Your task to perform on an android device: read, delete, or share a saved page in the chrome app Image 0: 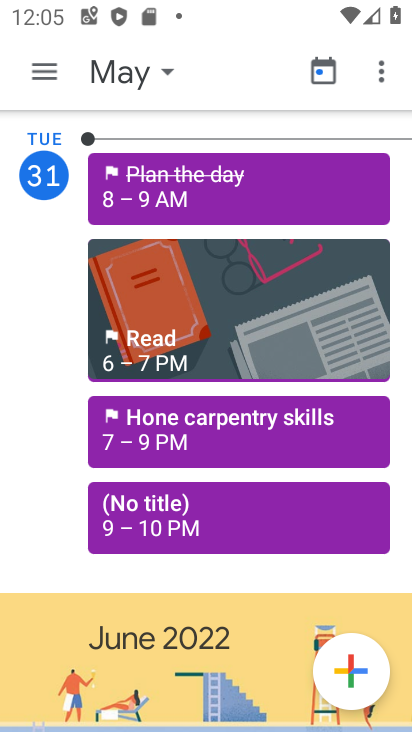
Step 0: press home button
Your task to perform on an android device: read, delete, or share a saved page in the chrome app Image 1: 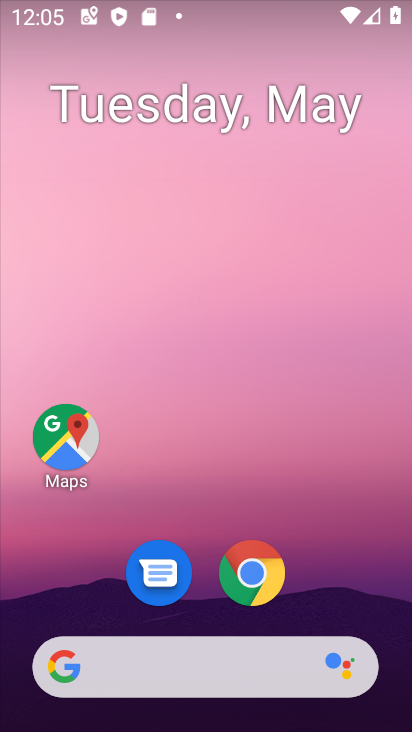
Step 1: drag from (332, 516) to (188, 94)
Your task to perform on an android device: read, delete, or share a saved page in the chrome app Image 2: 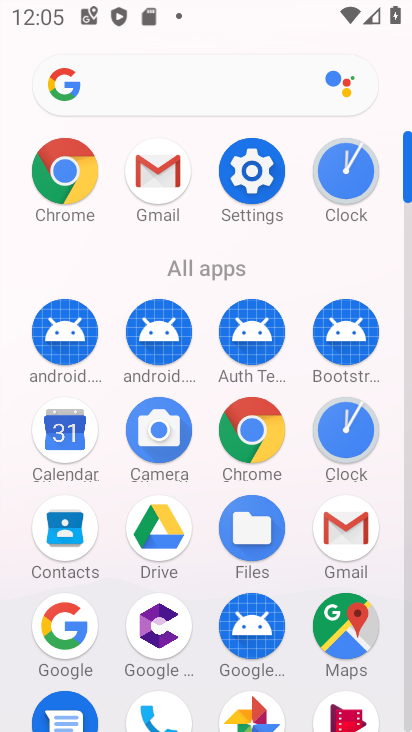
Step 2: click (74, 169)
Your task to perform on an android device: read, delete, or share a saved page in the chrome app Image 3: 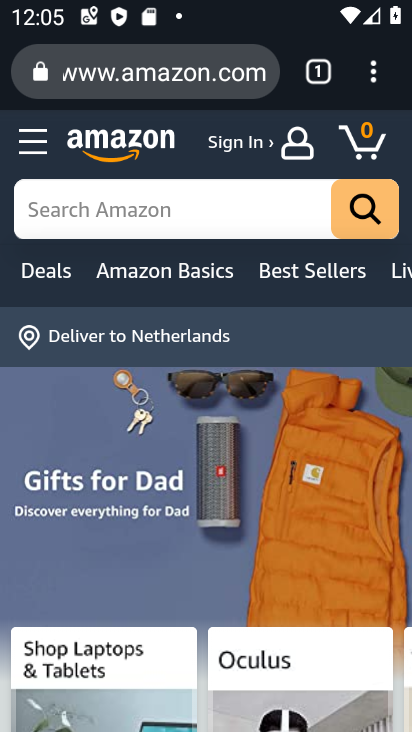
Step 3: task complete